Your task to perform on an android device: Go to sound settings Image 0: 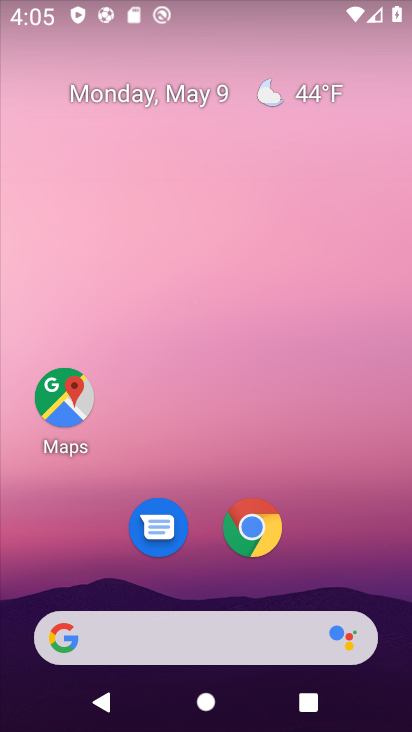
Step 0: click (198, 593)
Your task to perform on an android device: Go to sound settings Image 1: 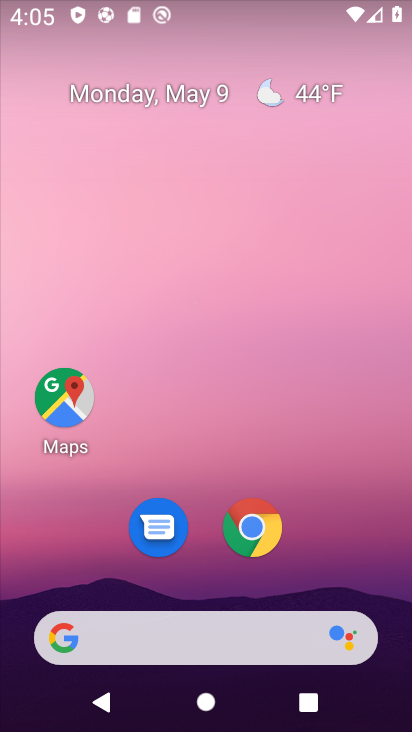
Step 1: drag from (198, 593) to (198, 118)
Your task to perform on an android device: Go to sound settings Image 2: 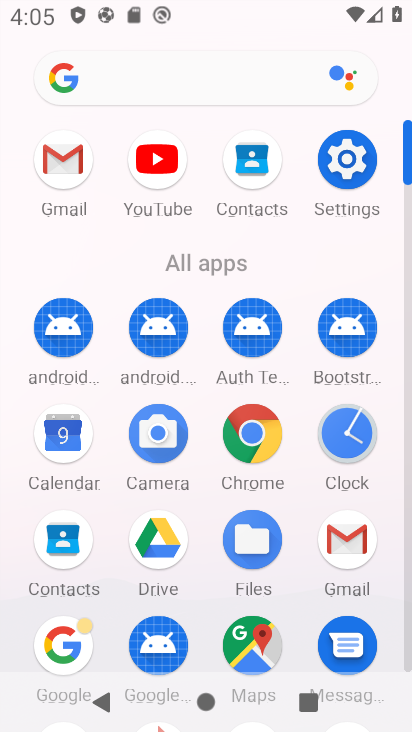
Step 2: click (360, 163)
Your task to perform on an android device: Go to sound settings Image 3: 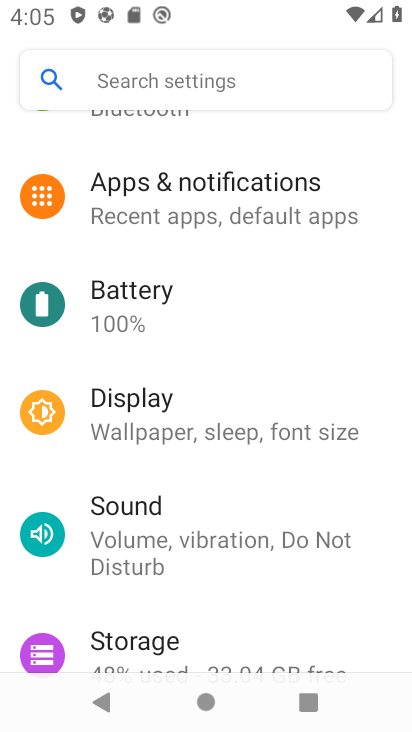
Step 3: click (227, 571)
Your task to perform on an android device: Go to sound settings Image 4: 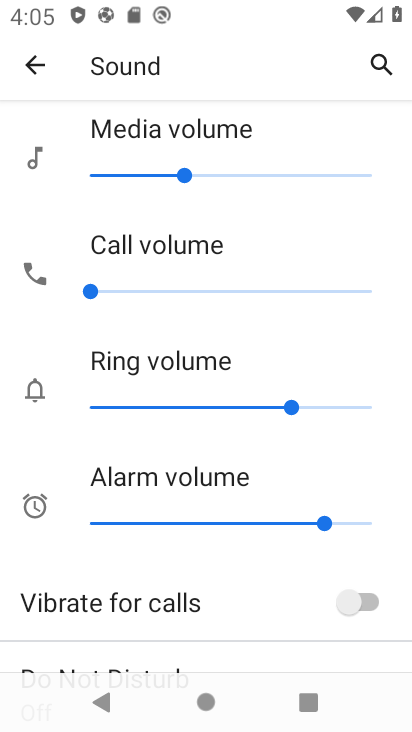
Step 4: task complete